Your task to perform on an android device: Open Chrome and go to settings Image 0: 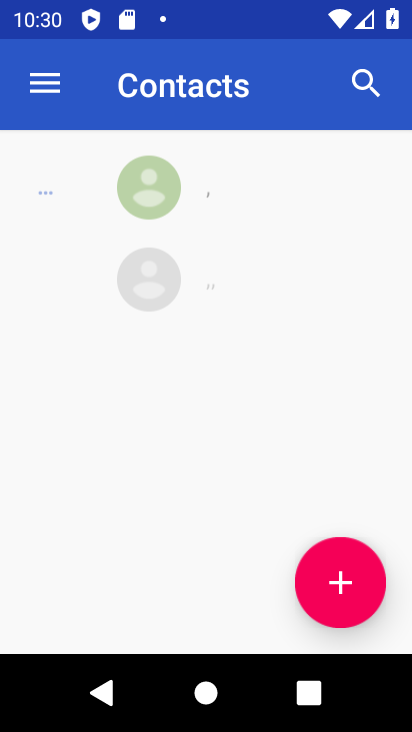
Step 0: press home button
Your task to perform on an android device: Open Chrome and go to settings Image 1: 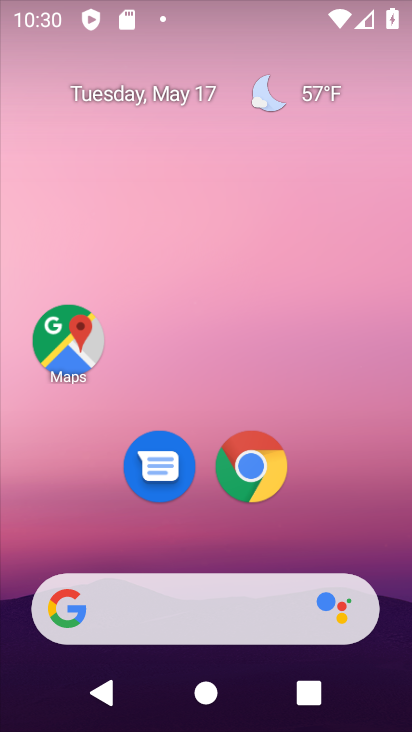
Step 1: drag from (206, 579) to (160, 103)
Your task to perform on an android device: Open Chrome and go to settings Image 2: 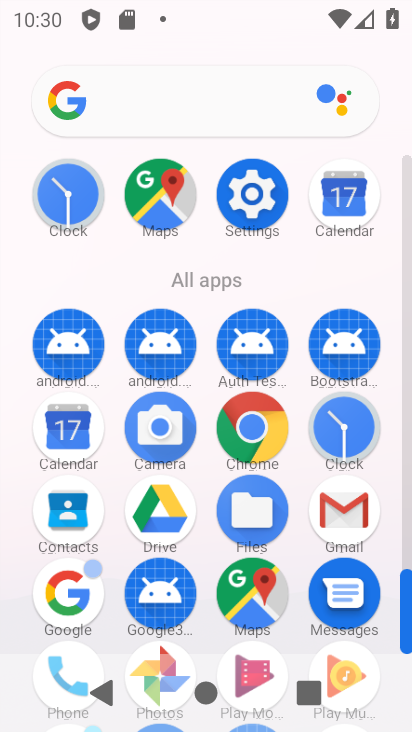
Step 2: click (249, 448)
Your task to perform on an android device: Open Chrome and go to settings Image 3: 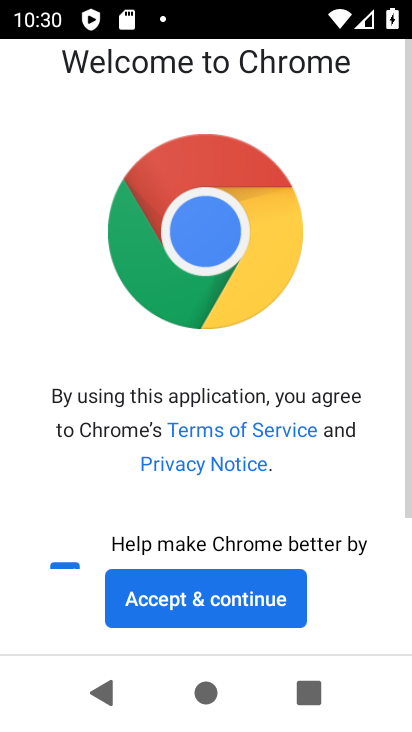
Step 3: click (207, 617)
Your task to perform on an android device: Open Chrome and go to settings Image 4: 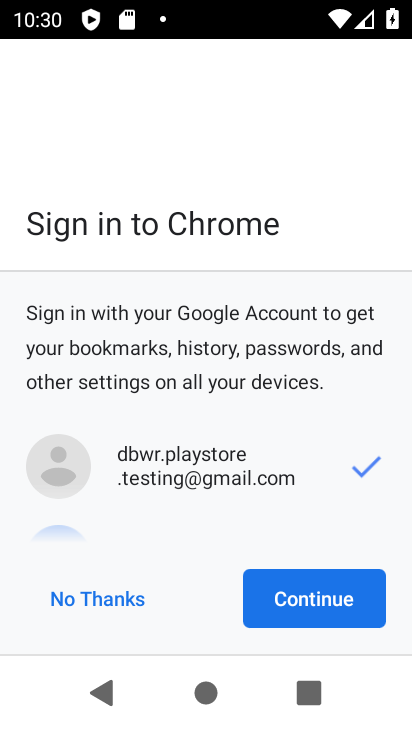
Step 4: click (295, 604)
Your task to perform on an android device: Open Chrome and go to settings Image 5: 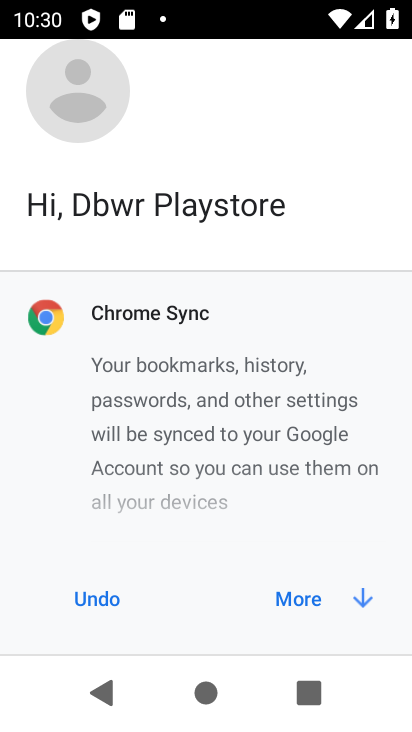
Step 5: click (335, 604)
Your task to perform on an android device: Open Chrome and go to settings Image 6: 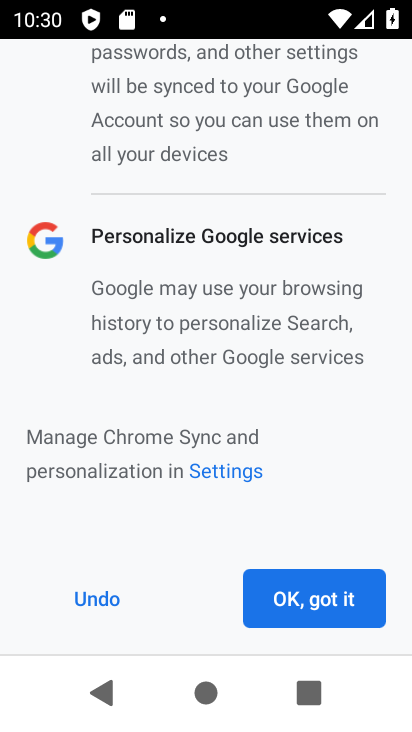
Step 6: click (336, 604)
Your task to perform on an android device: Open Chrome and go to settings Image 7: 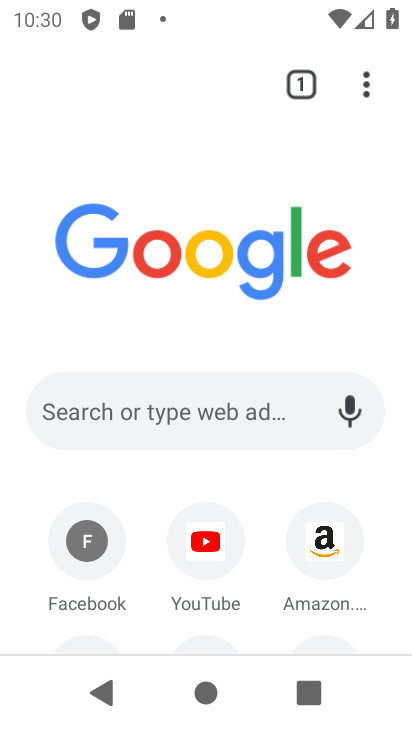
Step 7: click (363, 88)
Your task to perform on an android device: Open Chrome and go to settings Image 8: 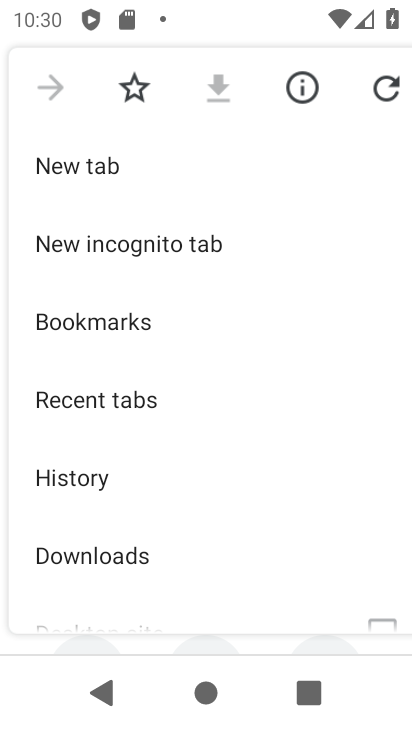
Step 8: drag from (219, 505) to (155, 28)
Your task to perform on an android device: Open Chrome and go to settings Image 9: 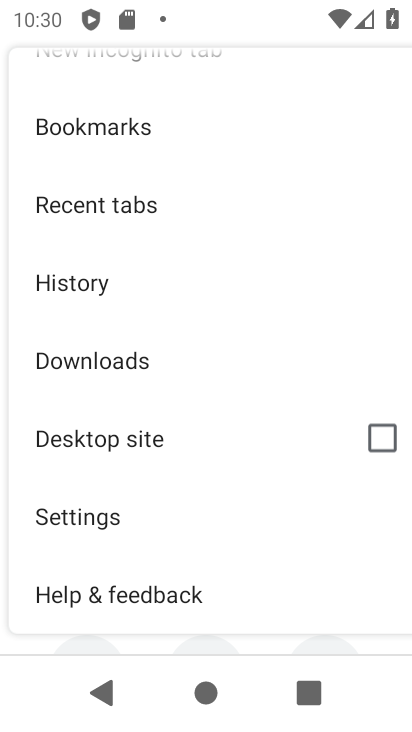
Step 9: click (65, 521)
Your task to perform on an android device: Open Chrome and go to settings Image 10: 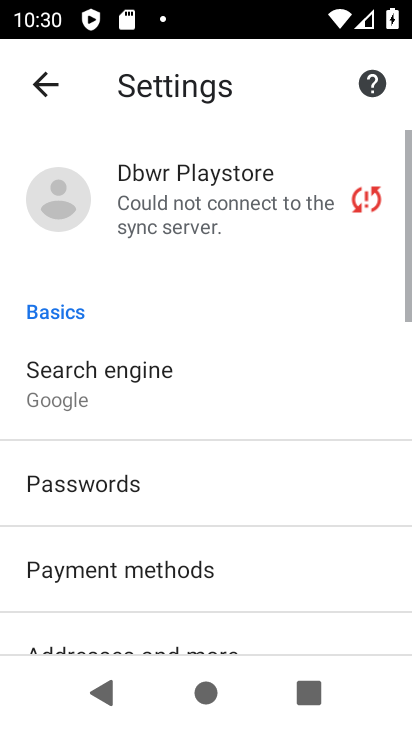
Step 10: task complete